Your task to perform on an android device: stop showing notifications on the lock screen Image 0: 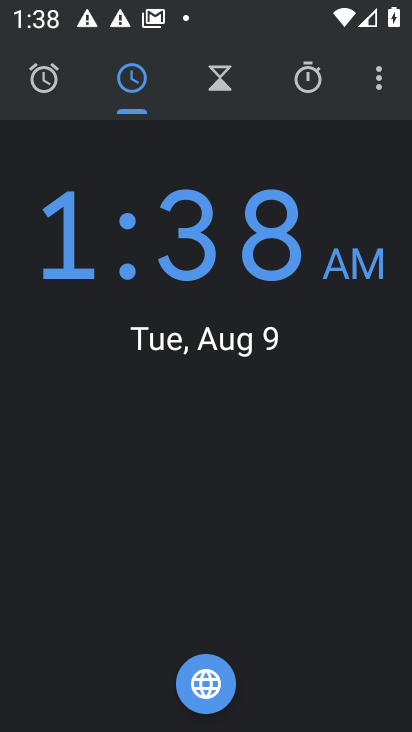
Step 0: press home button
Your task to perform on an android device: stop showing notifications on the lock screen Image 1: 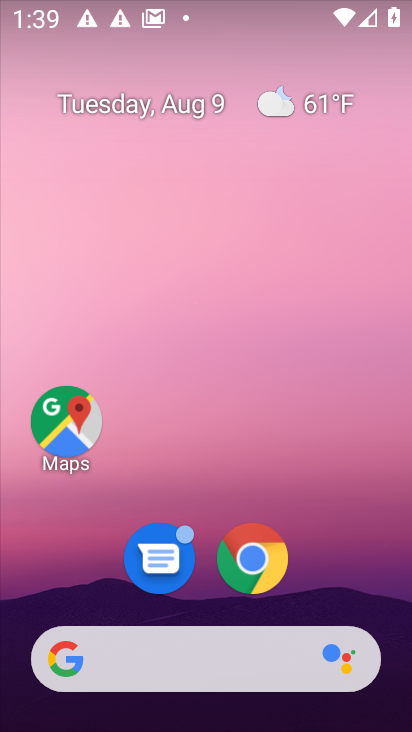
Step 1: drag from (201, 540) to (208, 209)
Your task to perform on an android device: stop showing notifications on the lock screen Image 2: 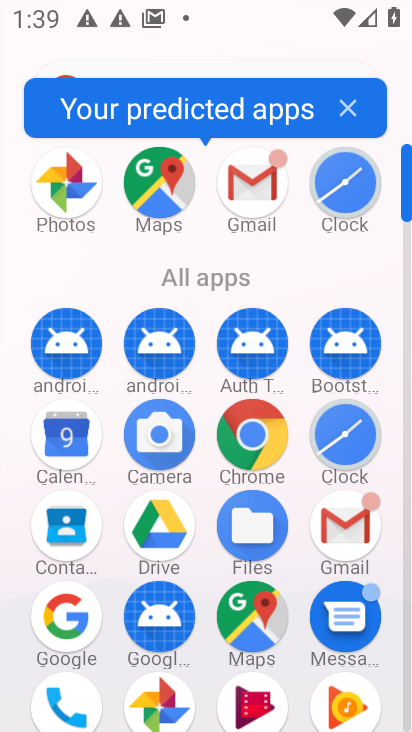
Step 2: click (200, 583)
Your task to perform on an android device: stop showing notifications on the lock screen Image 3: 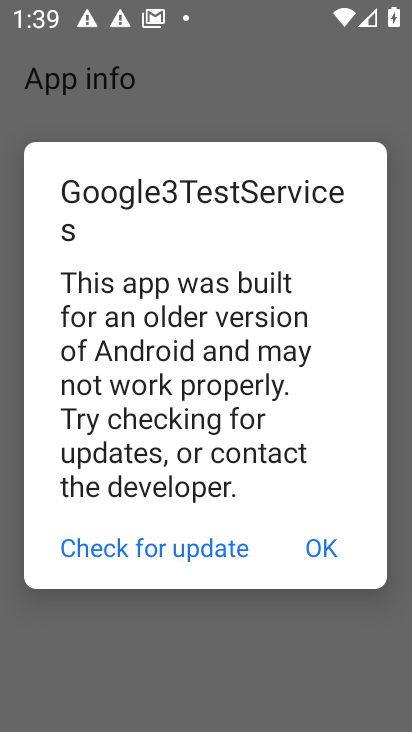
Step 3: press back button
Your task to perform on an android device: stop showing notifications on the lock screen Image 4: 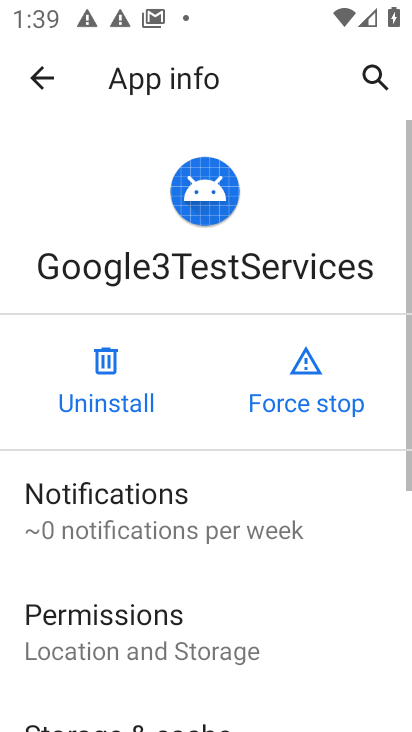
Step 4: press back button
Your task to perform on an android device: stop showing notifications on the lock screen Image 5: 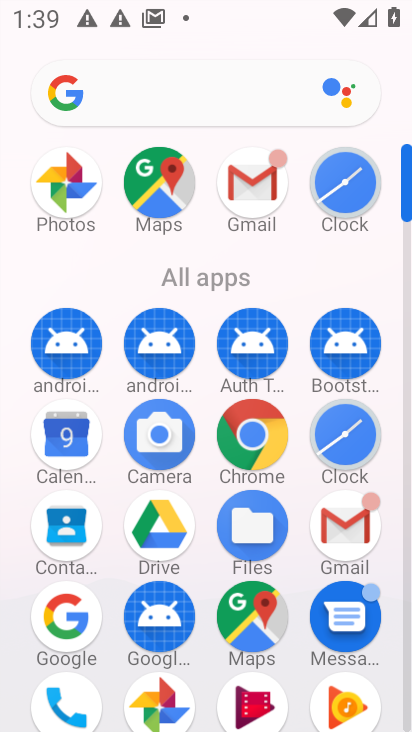
Step 5: drag from (220, 404) to (215, 225)
Your task to perform on an android device: stop showing notifications on the lock screen Image 6: 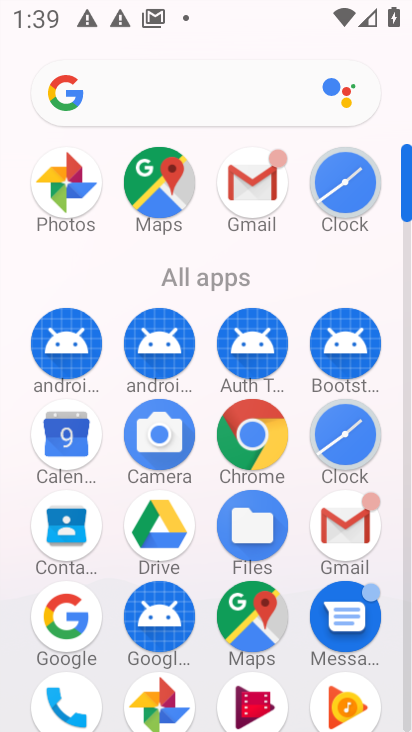
Step 6: drag from (199, 569) to (178, 172)
Your task to perform on an android device: stop showing notifications on the lock screen Image 7: 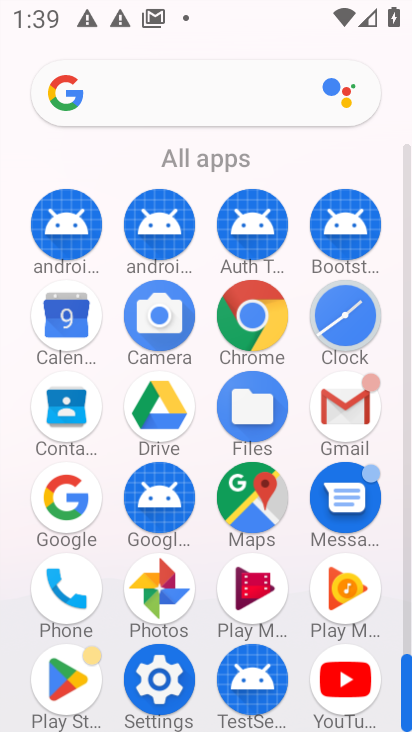
Step 7: click (162, 679)
Your task to perform on an android device: stop showing notifications on the lock screen Image 8: 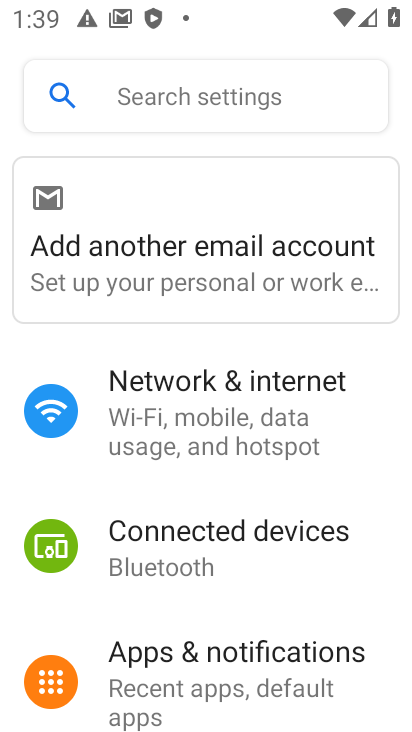
Step 8: click (207, 403)
Your task to perform on an android device: stop showing notifications on the lock screen Image 9: 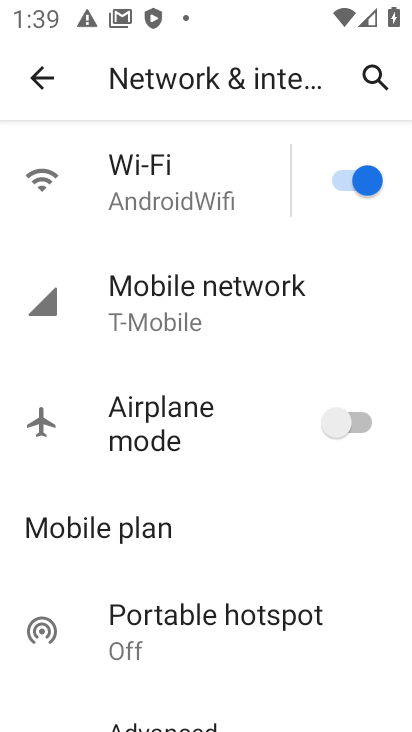
Step 9: press back button
Your task to perform on an android device: stop showing notifications on the lock screen Image 10: 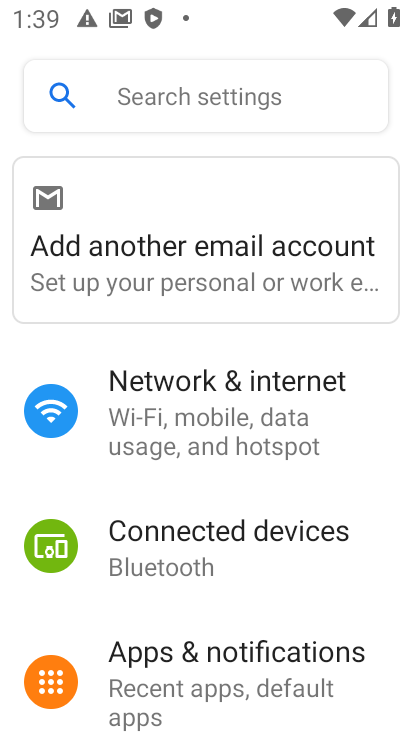
Step 10: click (163, 663)
Your task to perform on an android device: stop showing notifications on the lock screen Image 11: 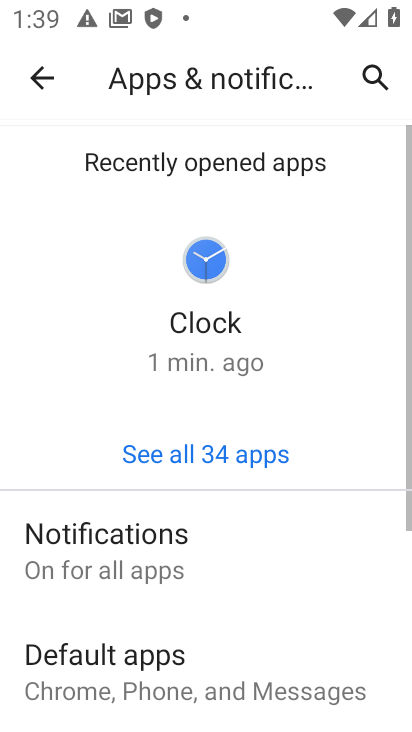
Step 11: click (264, 588)
Your task to perform on an android device: stop showing notifications on the lock screen Image 12: 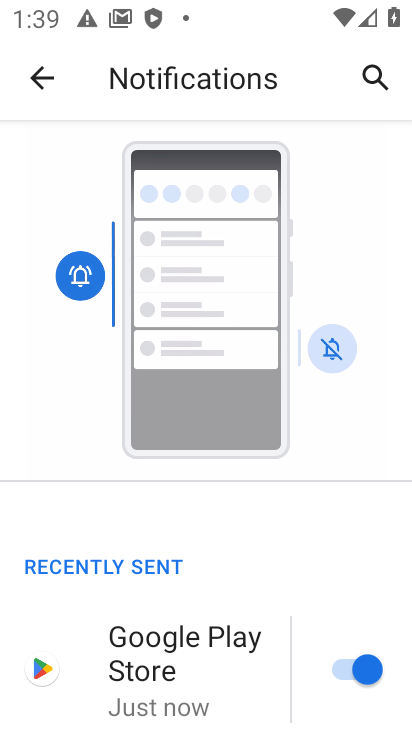
Step 12: drag from (187, 452) to (240, 124)
Your task to perform on an android device: stop showing notifications on the lock screen Image 13: 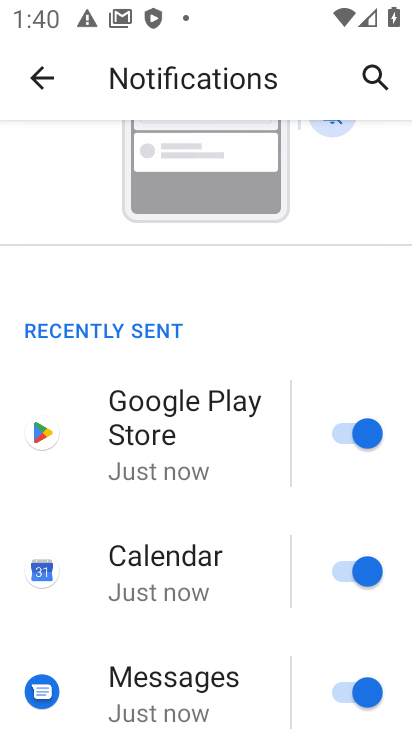
Step 13: drag from (219, 562) to (242, 298)
Your task to perform on an android device: stop showing notifications on the lock screen Image 14: 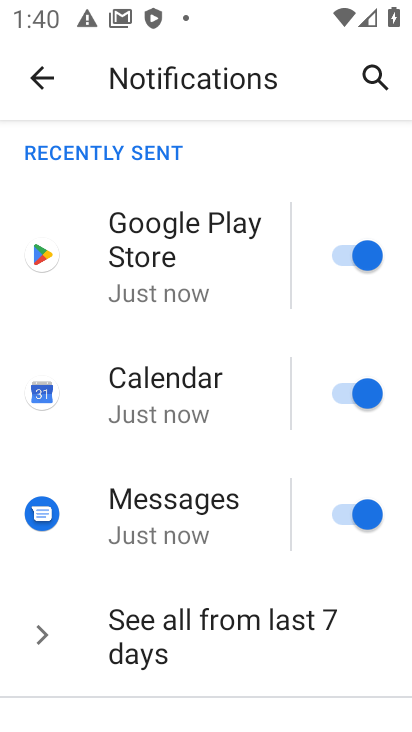
Step 14: drag from (213, 677) to (204, 383)
Your task to perform on an android device: stop showing notifications on the lock screen Image 15: 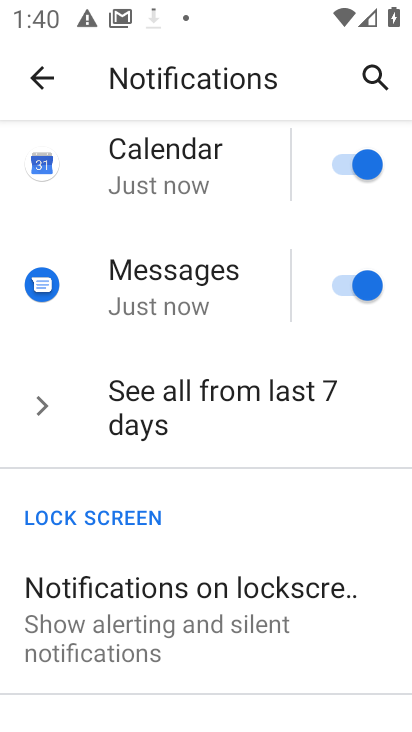
Step 15: click (196, 395)
Your task to perform on an android device: stop showing notifications on the lock screen Image 16: 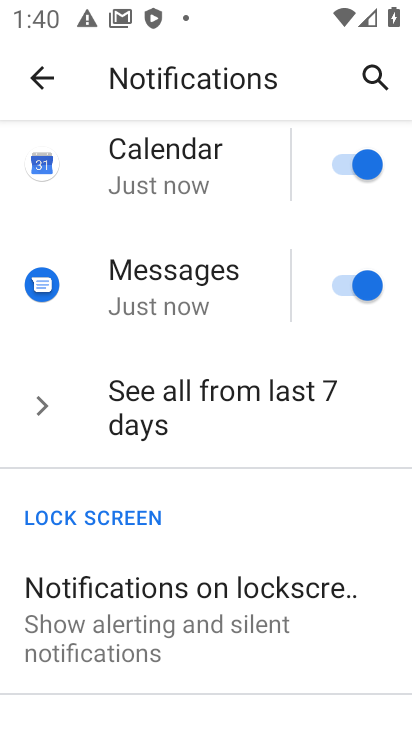
Step 16: click (136, 625)
Your task to perform on an android device: stop showing notifications on the lock screen Image 17: 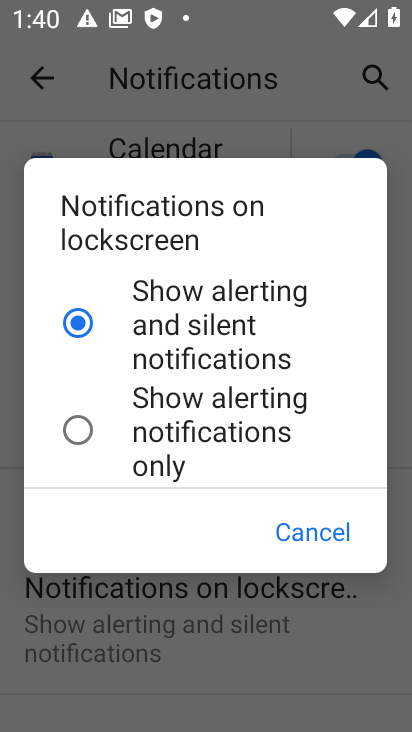
Step 17: click (72, 422)
Your task to perform on an android device: stop showing notifications on the lock screen Image 18: 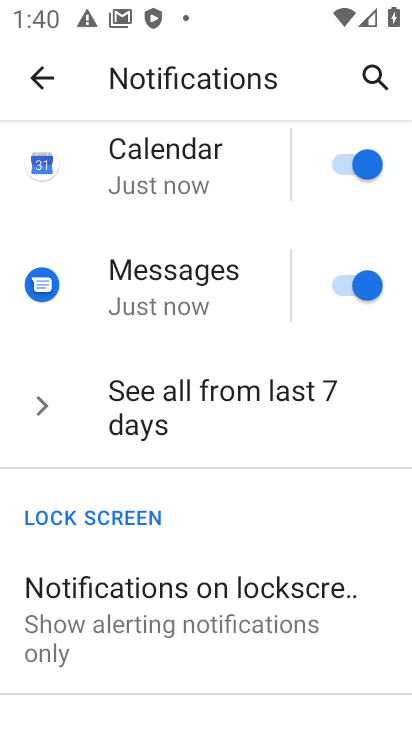
Step 18: task complete